Your task to perform on an android device: find which apps use the phone's location Image 0: 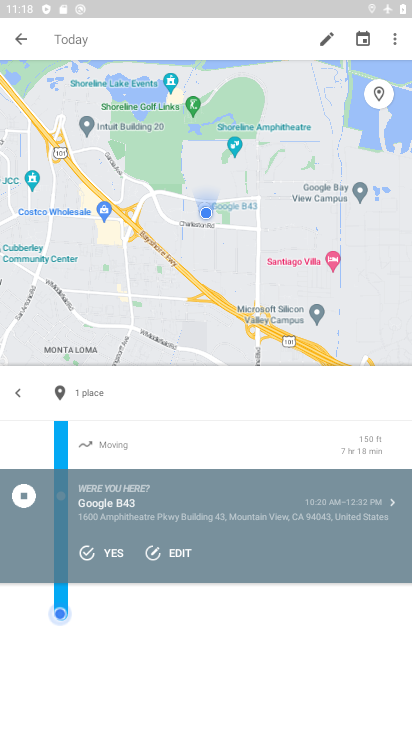
Step 0: press home button
Your task to perform on an android device: find which apps use the phone's location Image 1: 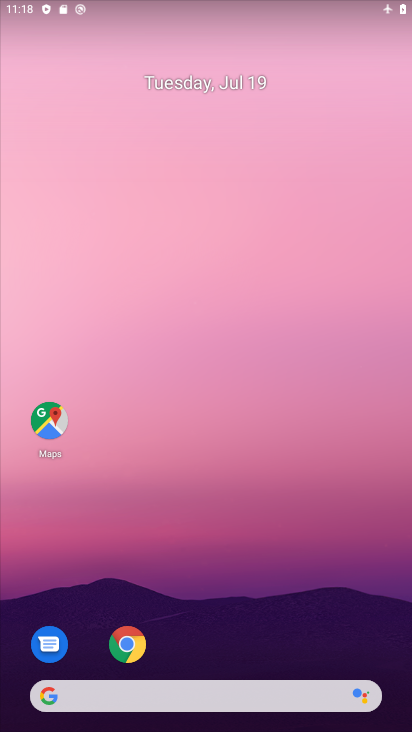
Step 1: drag from (43, 728) to (230, 55)
Your task to perform on an android device: find which apps use the phone's location Image 2: 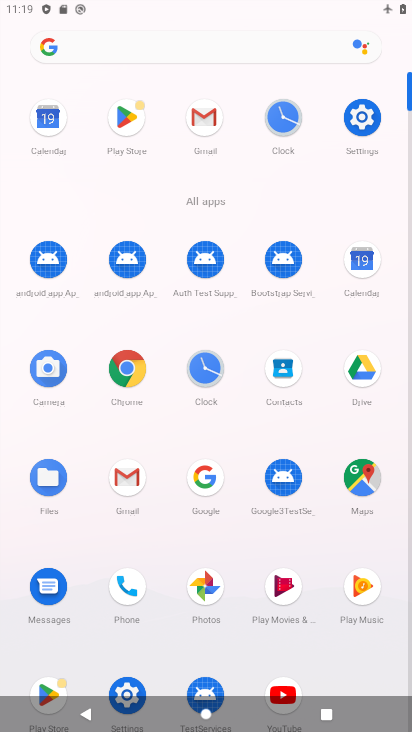
Step 2: click (140, 708)
Your task to perform on an android device: find which apps use the phone's location Image 3: 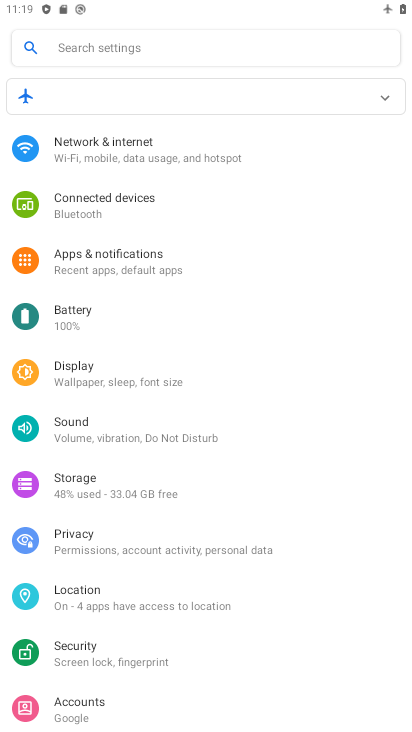
Step 3: click (104, 255)
Your task to perform on an android device: find which apps use the phone's location Image 4: 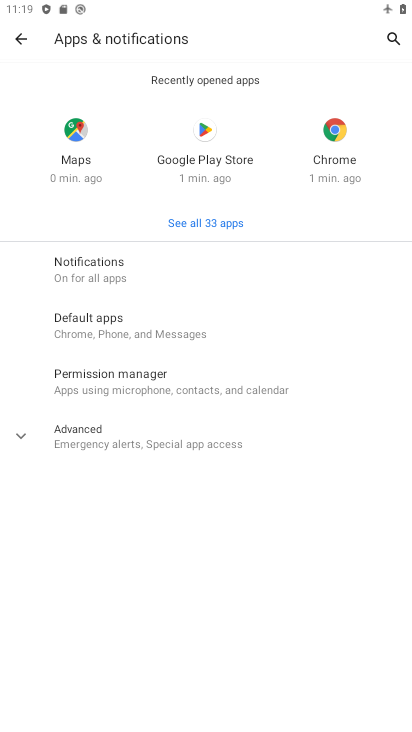
Step 4: click (137, 381)
Your task to perform on an android device: find which apps use the phone's location Image 5: 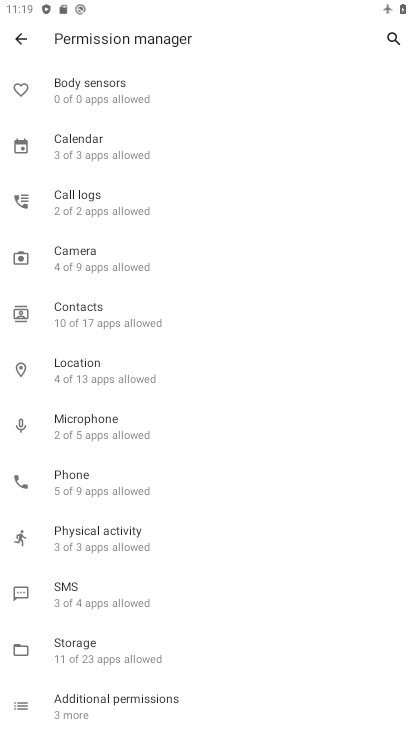
Step 5: task complete